Your task to perform on an android device: clear history in the chrome app Image 0: 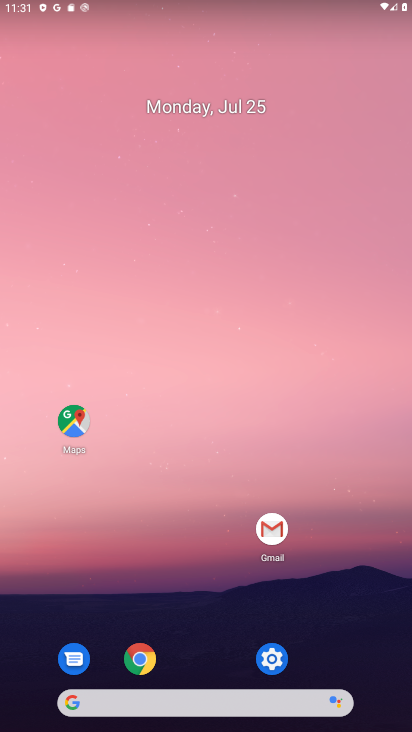
Step 0: click (140, 645)
Your task to perform on an android device: clear history in the chrome app Image 1: 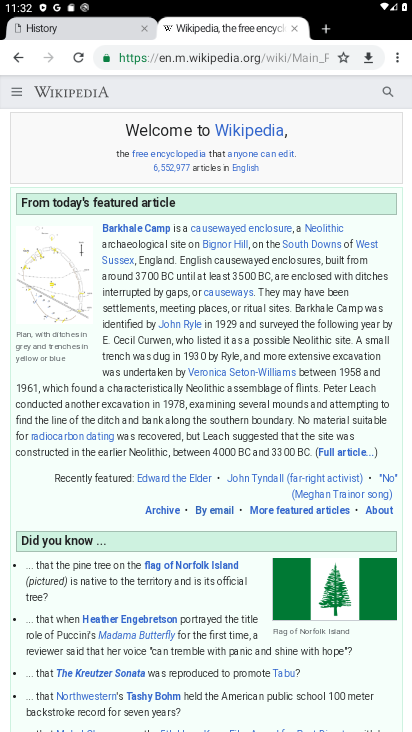
Step 1: click (395, 60)
Your task to perform on an android device: clear history in the chrome app Image 2: 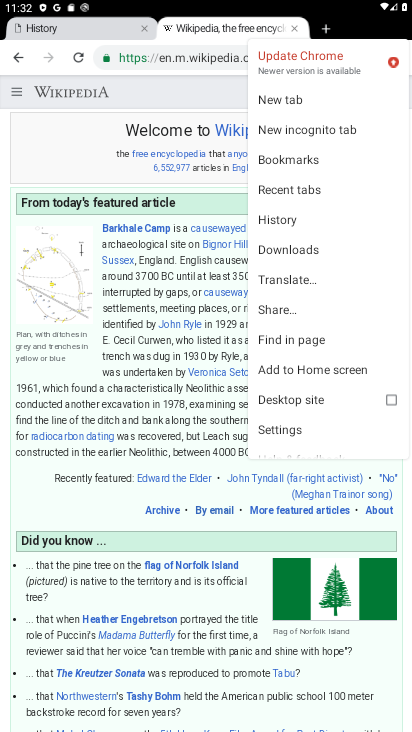
Step 2: click (295, 216)
Your task to perform on an android device: clear history in the chrome app Image 3: 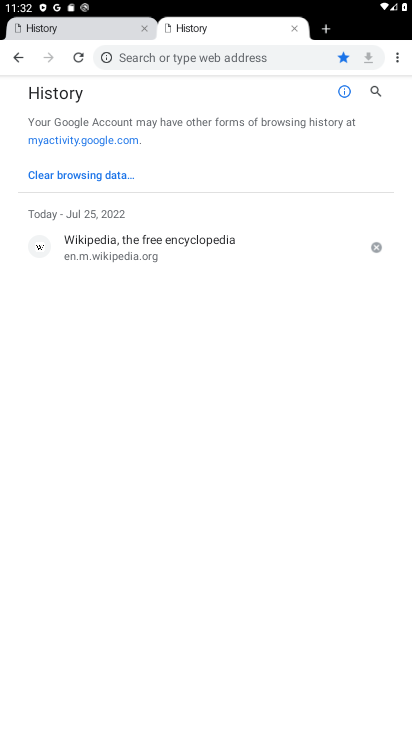
Step 3: click (93, 170)
Your task to perform on an android device: clear history in the chrome app Image 4: 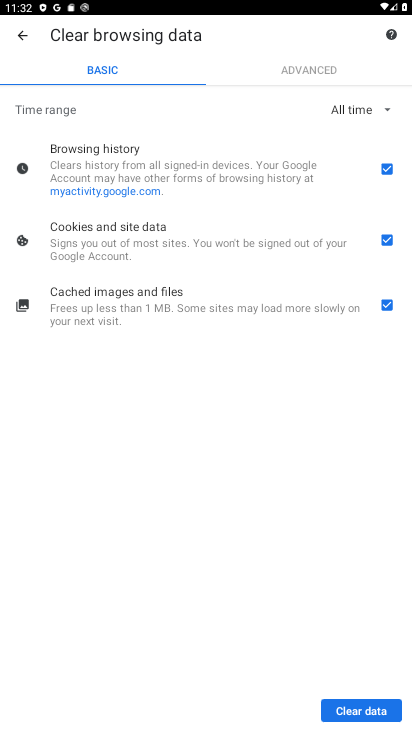
Step 4: click (357, 711)
Your task to perform on an android device: clear history in the chrome app Image 5: 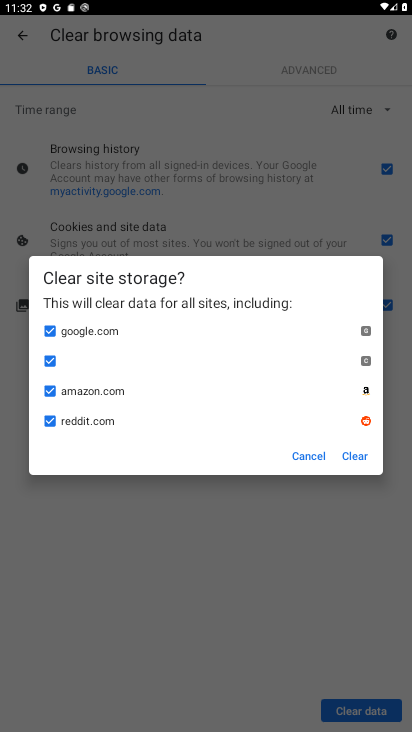
Step 5: click (357, 458)
Your task to perform on an android device: clear history in the chrome app Image 6: 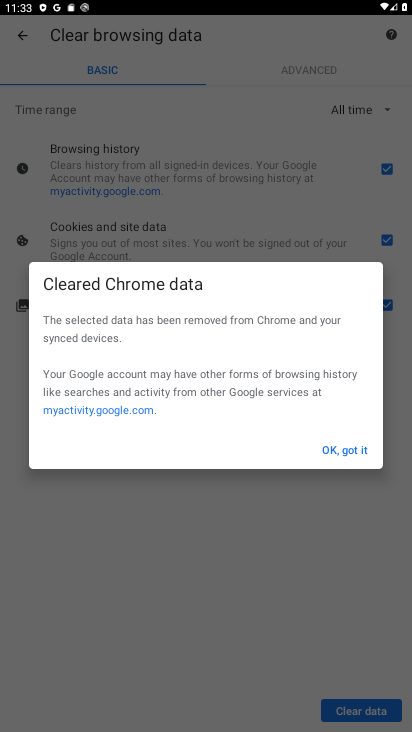
Step 6: task complete